Your task to perform on an android device: change keyboard looks Image 0: 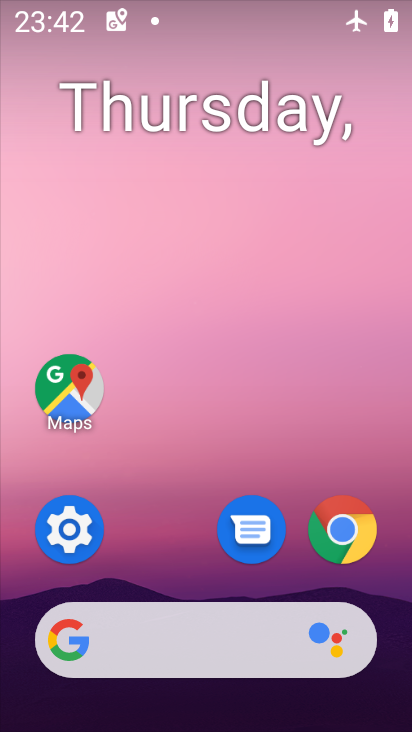
Step 0: drag from (250, 708) to (290, 59)
Your task to perform on an android device: change keyboard looks Image 1: 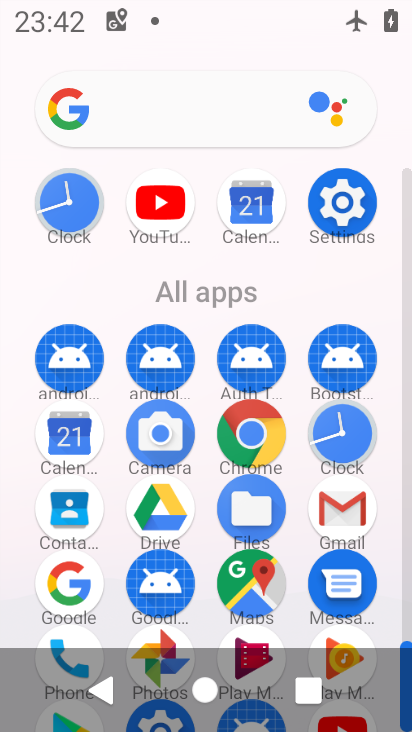
Step 1: click (338, 207)
Your task to perform on an android device: change keyboard looks Image 2: 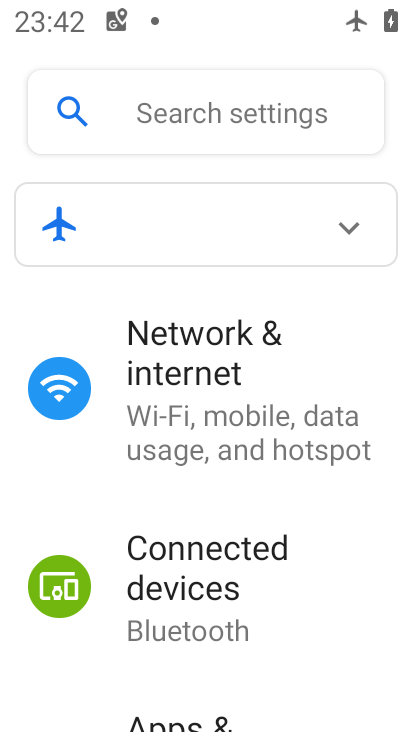
Step 2: drag from (252, 453) to (198, 40)
Your task to perform on an android device: change keyboard looks Image 3: 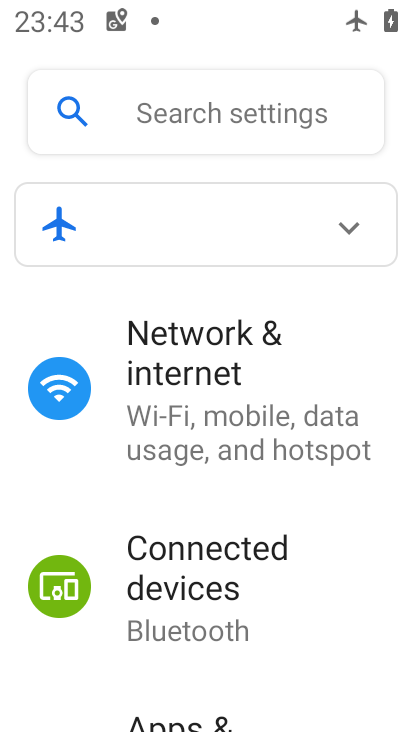
Step 3: drag from (326, 704) to (254, 71)
Your task to perform on an android device: change keyboard looks Image 4: 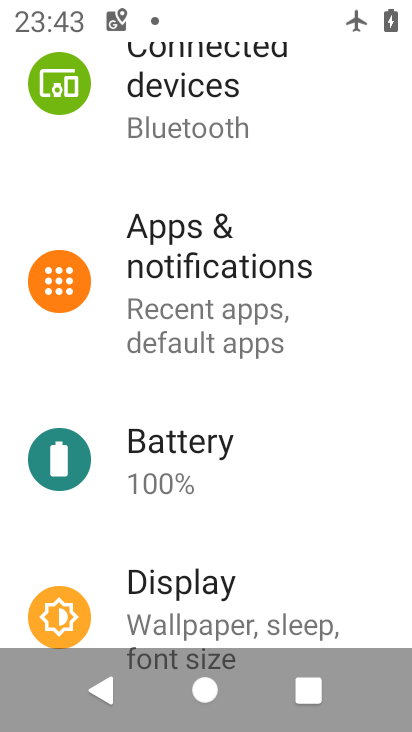
Step 4: drag from (296, 572) to (163, 7)
Your task to perform on an android device: change keyboard looks Image 5: 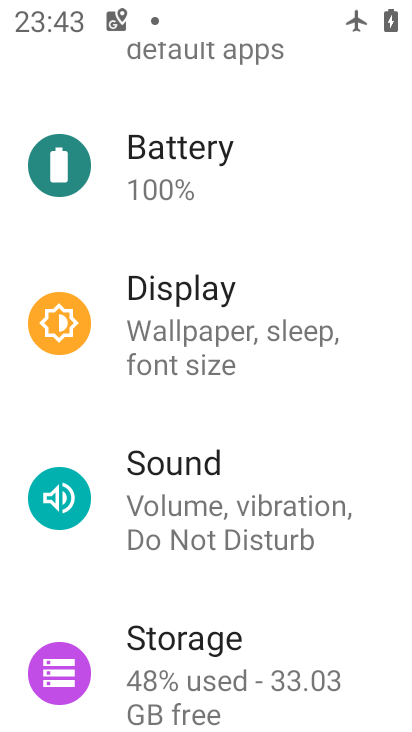
Step 5: drag from (312, 626) to (202, 42)
Your task to perform on an android device: change keyboard looks Image 6: 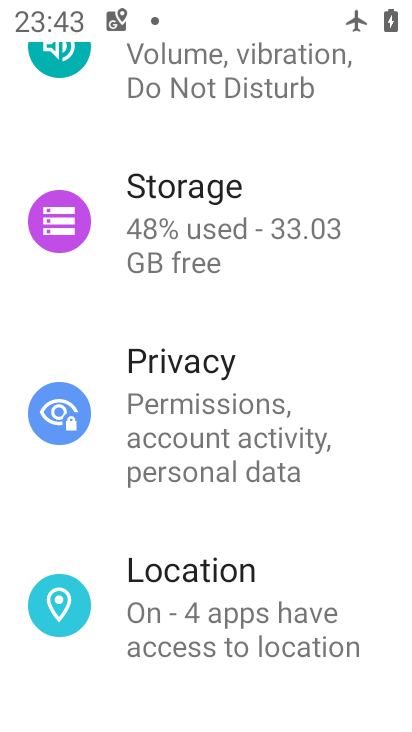
Step 6: drag from (271, 587) to (238, 10)
Your task to perform on an android device: change keyboard looks Image 7: 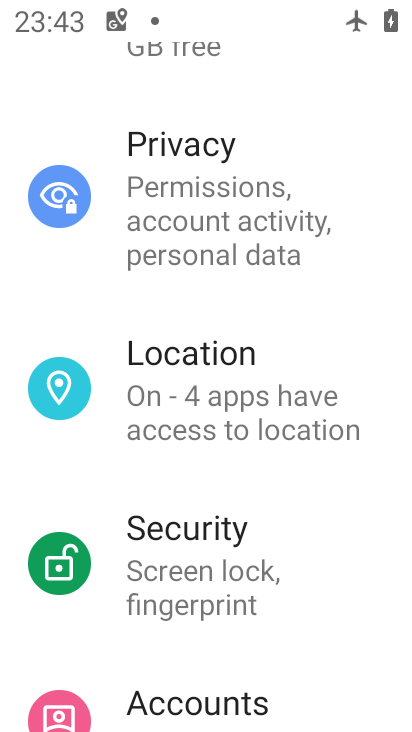
Step 7: drag from (305, 664) to (270, 36)
Your task to perform on an android device: change keyboard looks Image 8: 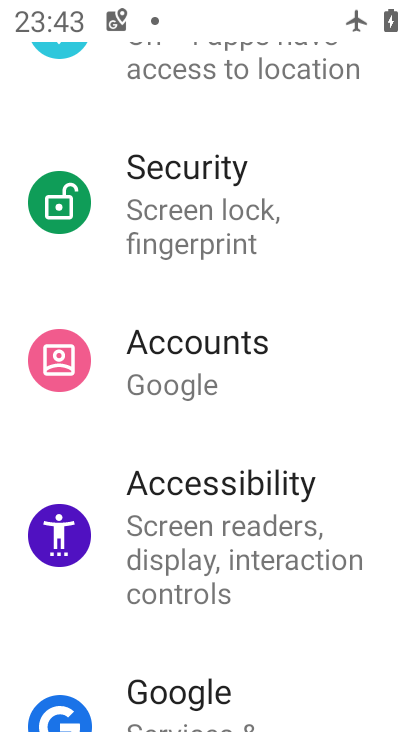
Step 8: drag from (263, 689) to (220, 6)
Your task to perform on an android device: change keyboard looks Image 9: 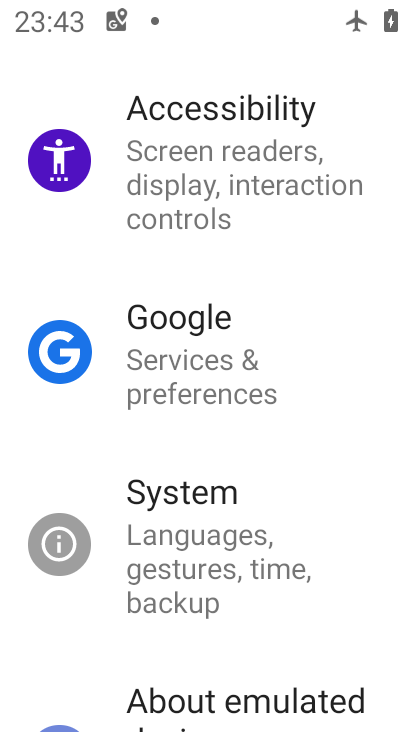
Step 9: click (290, 564)
Your task to perform on an android device: change keyboard looks Image 10: 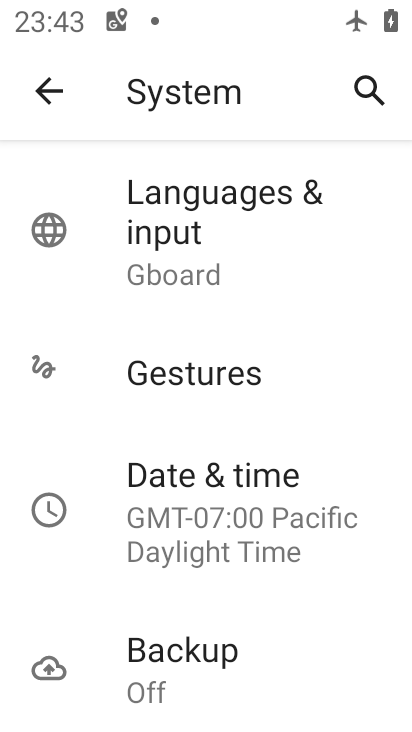
Step 10: click (221, 222)
Your task to perform on an android device: change keyboard looks Image 11: 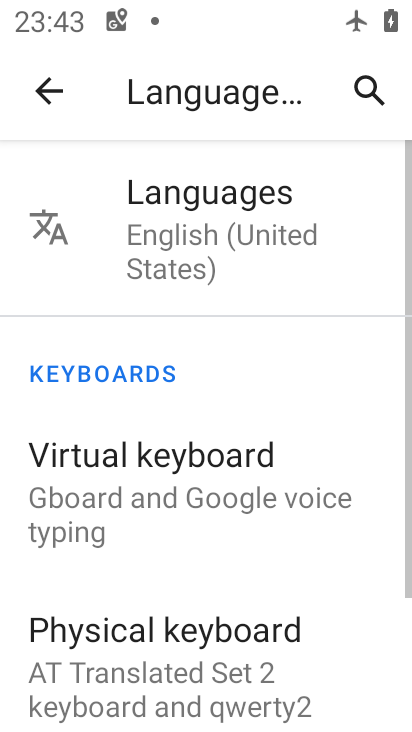
Step 11: click (180, 477)
Your task to perform on an android device: change keyboard looks Image 12: 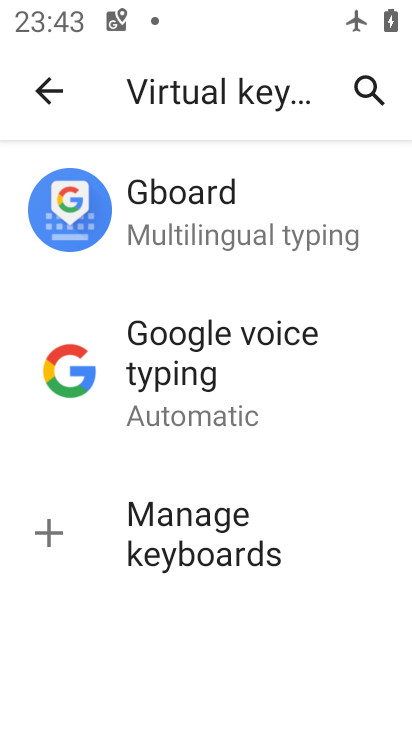
Step 12: click (211, 235)
Your task to perform on an android device: change keyboard looks Image 13: 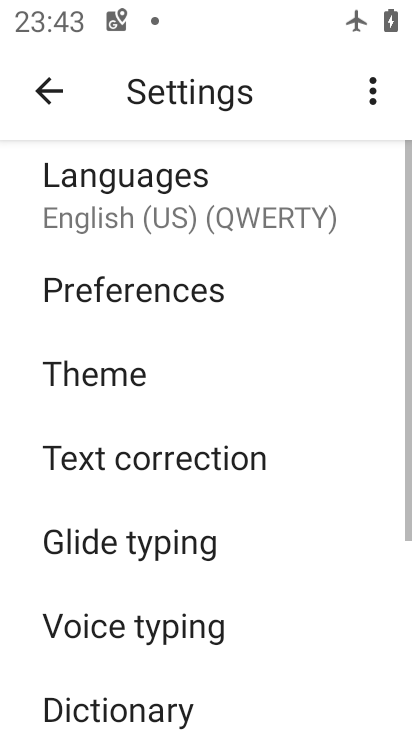
Step 13: click (154, 377)
Your task to perform on an android device: change keyboard looks Image 14: 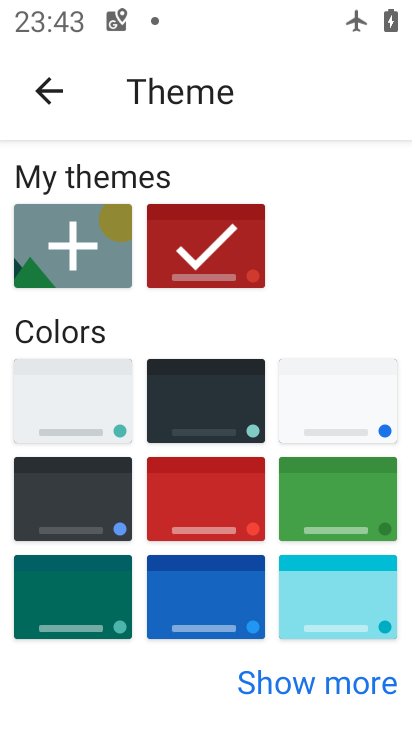
Step 14: click (169, 533)
Your task to perform on an android device: change keyboard looks Image 15: 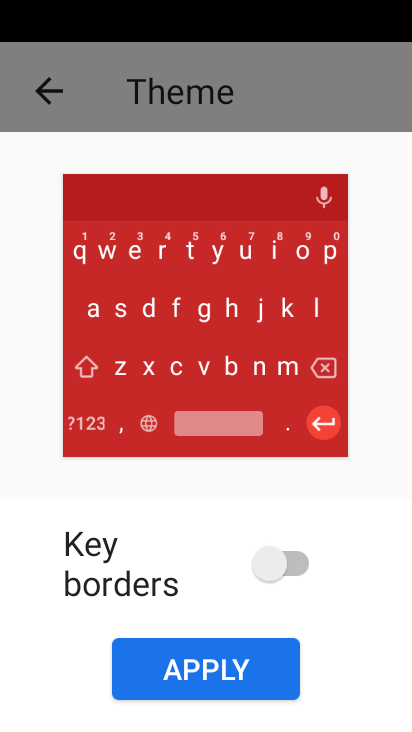
Step 15: click (175, 674)
Your task to perform on an android device: change keyboard looks Image 16: 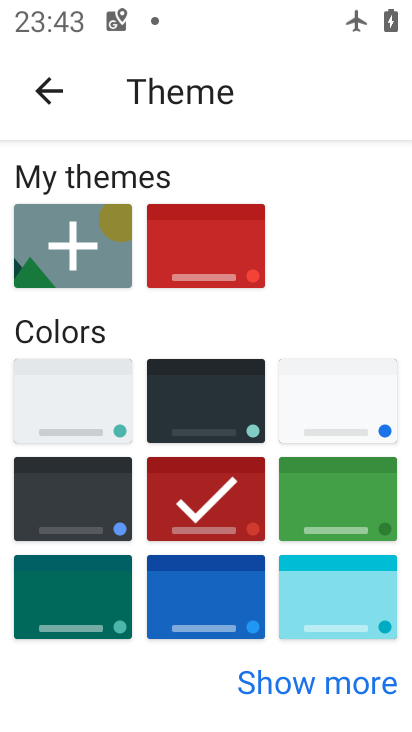
Step 16: task complete